Your task to perform on an android device: Open calendar and show me the second week of next month Image 0: 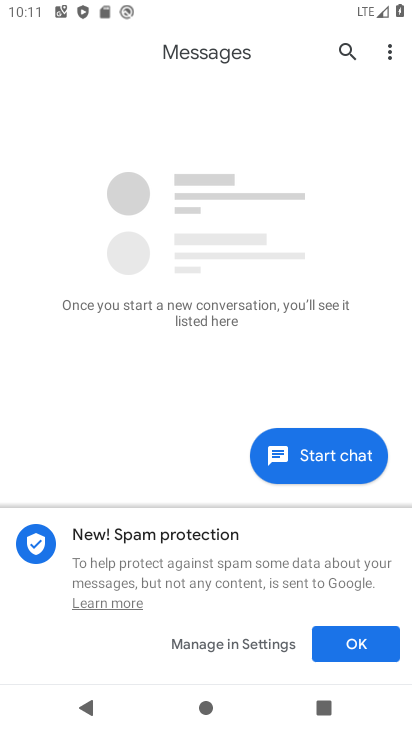
Step 0: press home button
Your task to perform on an android device: Open calendar and show me the second week of next month Image 1: 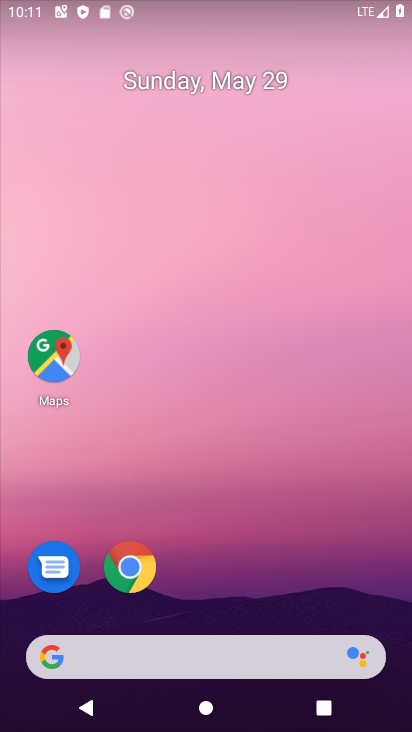
Step 1: drag from (339, 601) to (248, 147)
Your task to perform on an android device: Open calendar and show me the second week of next month Image 2: 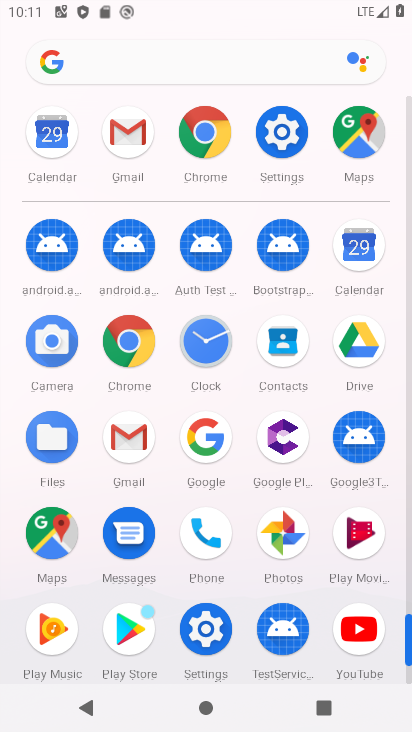
Step 2: click (358, 244)
Your task to perform on an android device: Open calendar and show me the second week of next month Image 3: 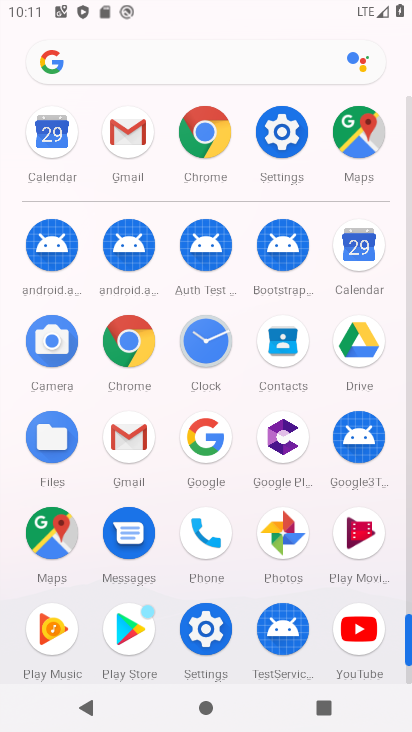
Step 3: click (358, 244)
Your task to perform on an android device: Open calendar and show me the second week of next month Image 4: 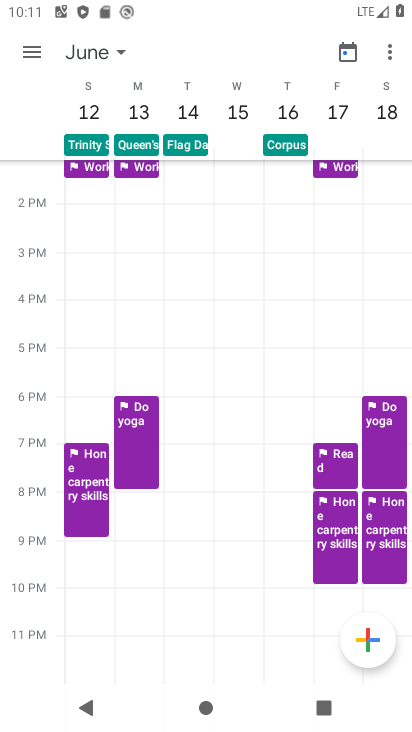
Step 4: click (121, 48)
Your task to perform on an android device: Open calendar and show me the second week of next month Image 5: 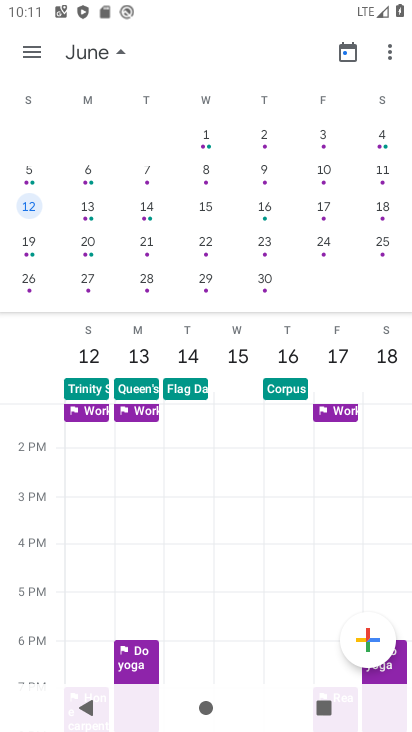
Step 5: task complete